Your task to perform on an android device: Open wifi settings Image 0: 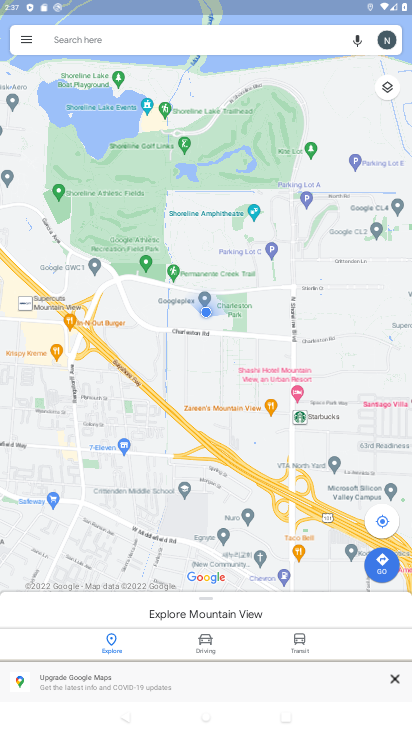
Step 0: press home button
Your task to perform on an android device: Open wifi settings Image 1: 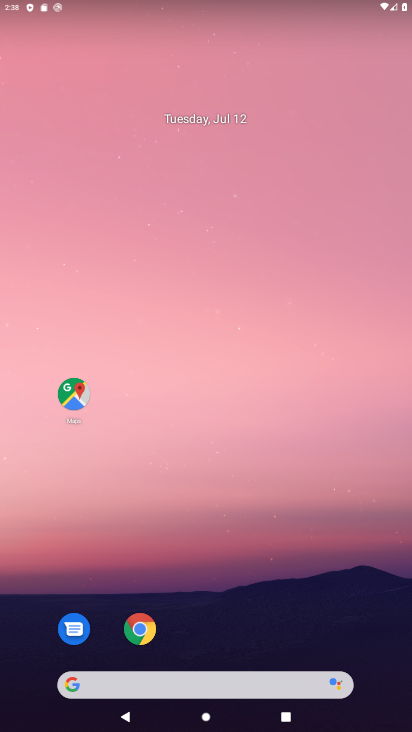
Step 1: drag from (184, 685) to (249, 198)
Your task to perform on an android device: Open wifi settings Image 2: 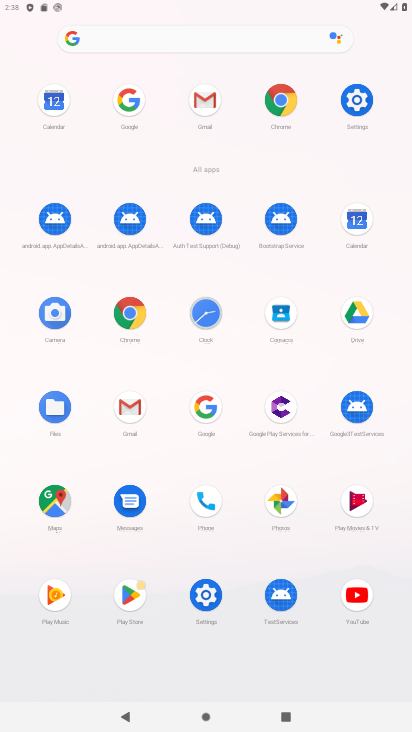
Step 2: click (357, 99)
Your task to perform on an android device: Open wifi settings Image 3: 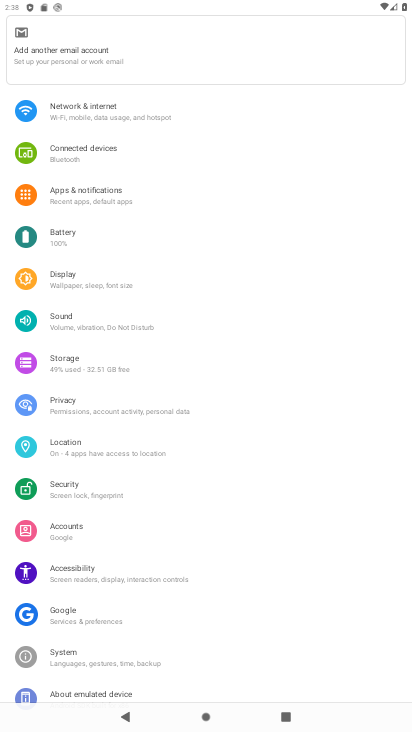
Step 3: click (89, 114)
Your task to perform on an android device: Open wifi settings Image 4: 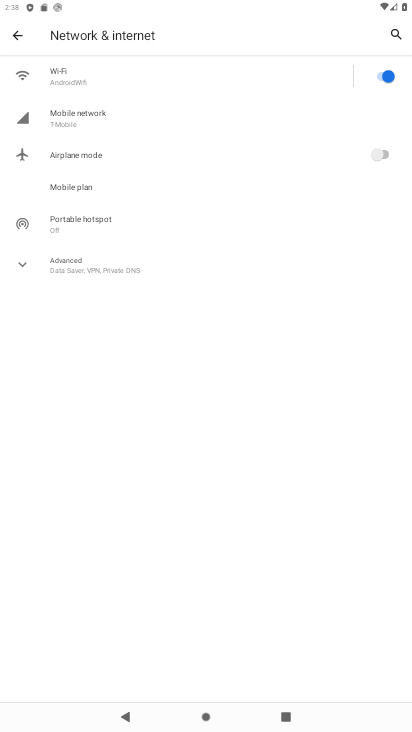
Step 4: click (82, 83)
Your task to perform on an android device: Open wifi settings Image 5: 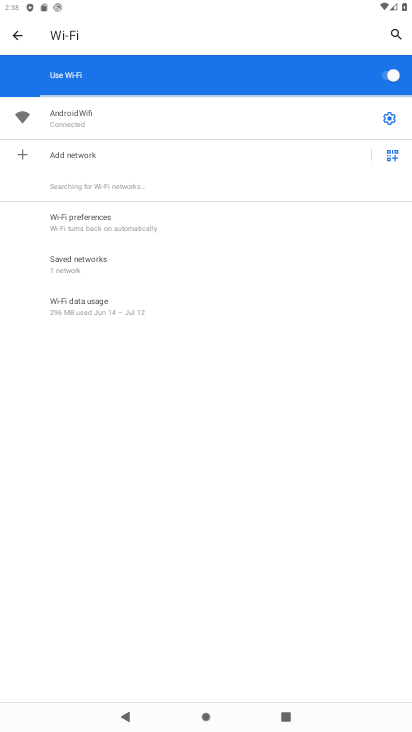
Step 5: click (391, 117)
Your task to perform on an android device: Open wifi settings Image 6: 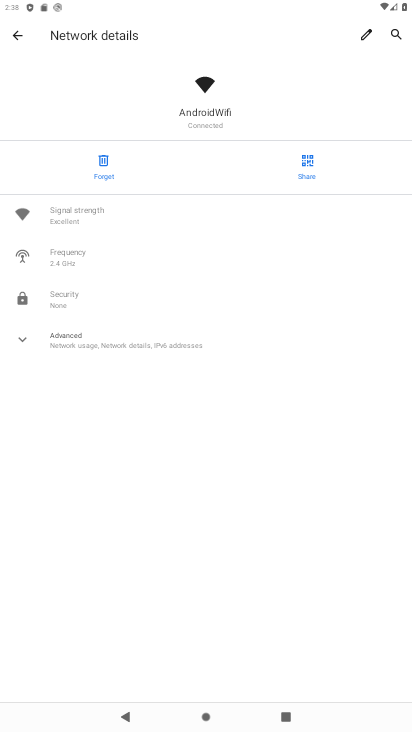
Step 6: task complete